Your task to perform on an android device: Is it going to rain this weekend? Image 0: 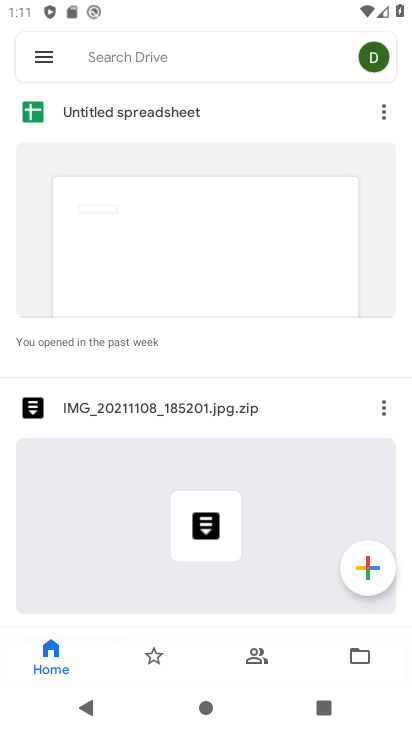
Step 0: press home button
Your task to perform on an android device: Is it going to rain this weekend? Image 1: 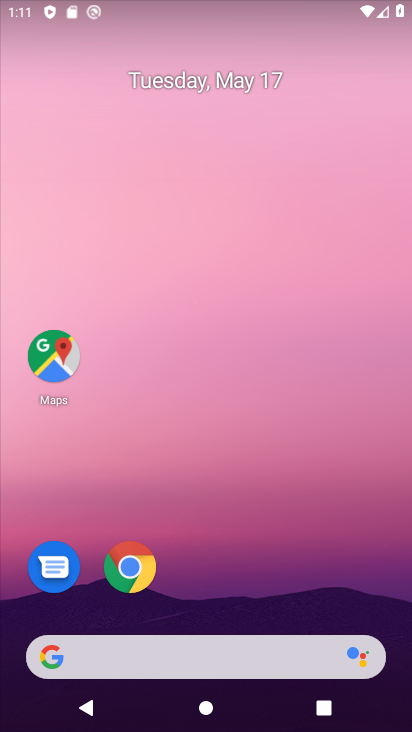
Step 1: drag from (6, 144) to (410, 222)
Your task to perform on an android device: Is it going to rain this weekend? Image 2: 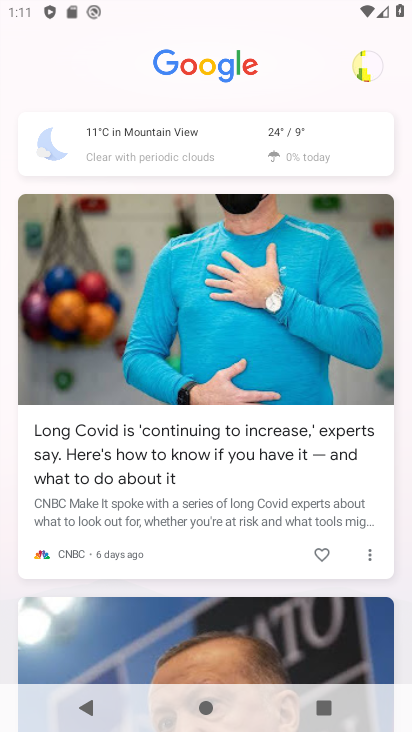
Step 2: click (286, 131)
Your task to perform on an android device: Is it going to rain this weekend? Image 3: 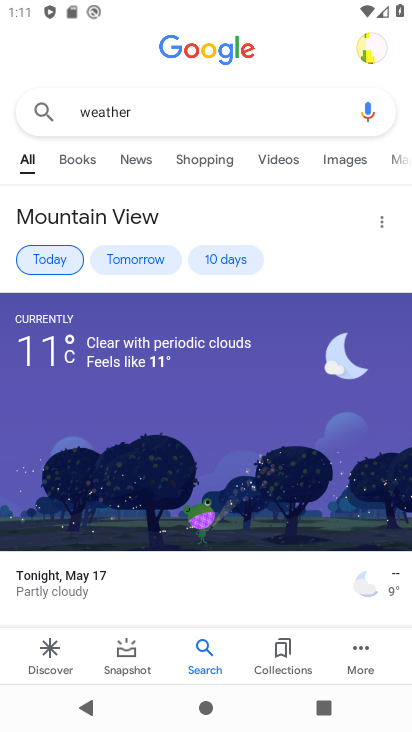
Step 3: click (233, 259)
Your task to perform on an android device: Is it going to rain this weekend? Image 4: 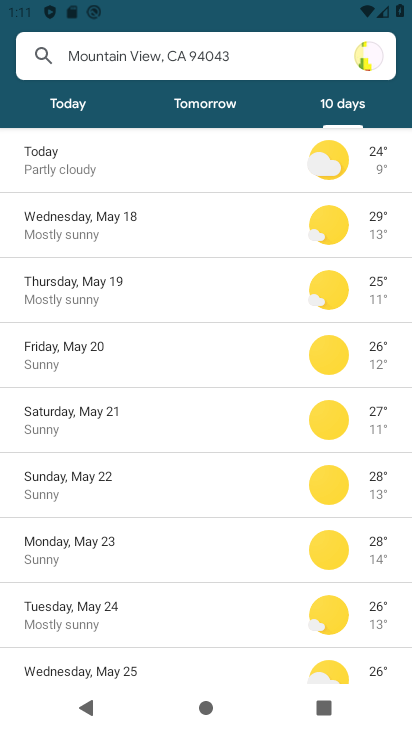
Step 4: task complete